Your task to perform on an android device: Open Google Chrome Image 0: 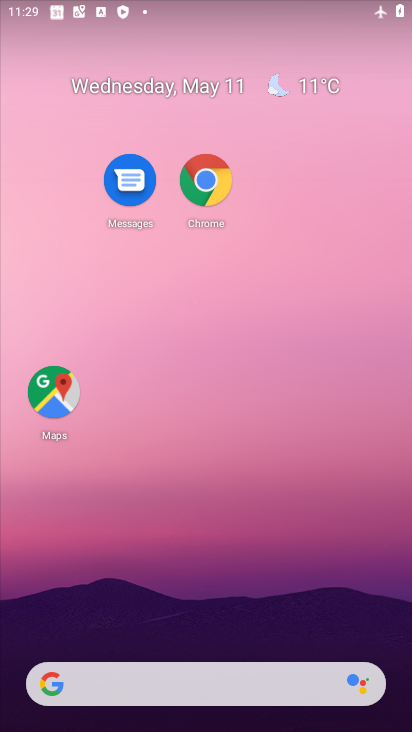
Step 0: drag from (248, 612) to (368, 0)
Your task to perform on an android device: Open Google Chrome Image 1: 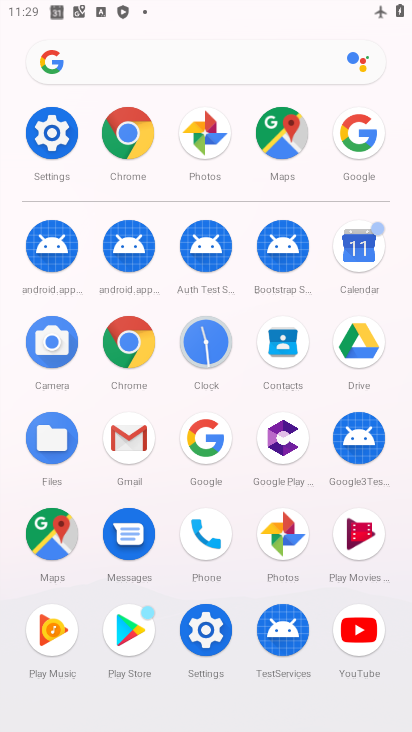
Step 1: click (139, 351)
Your task to perform on an android device: Open Google Chrome Image 2: 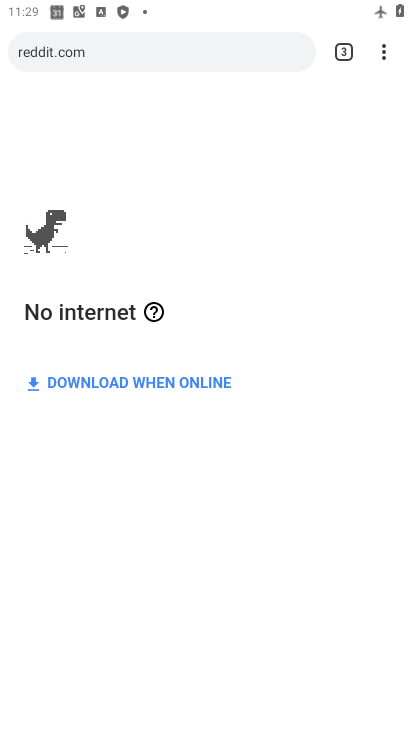
Step 2: task complete